Your task to perform on an android device: Open the phone app and click the voicemail tab. Image 0: 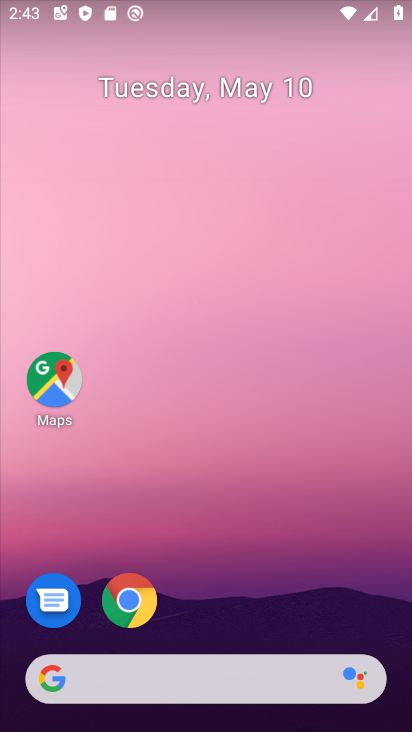
Step 0: drag from (257, 669) to (232, 7)
Your task to perform on an android device: Open the phone app and click the voicemail tab. Image 1: 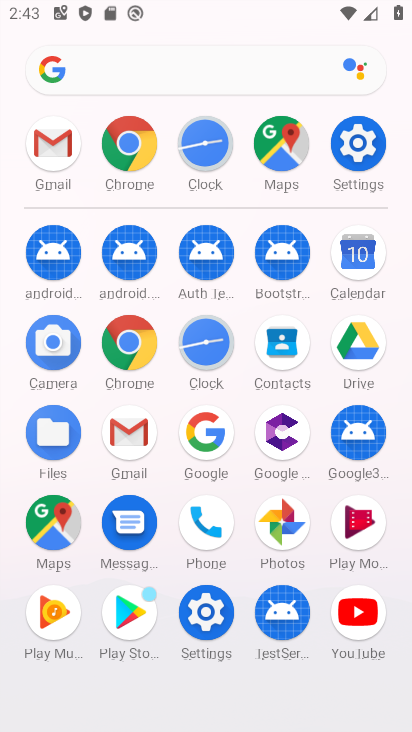
Step 1: drag from (262, 523) to (284, 333)
Your task to perform on an android device: Open the phone app and click the voicemail tab. Image 2: 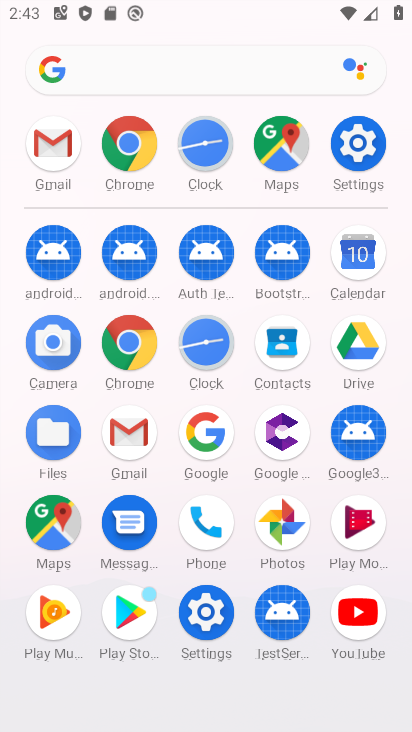
Step 2: click (217, 529)
Your task to perform on an android device: Open the phone app and click the voicemail tab. Image 3: 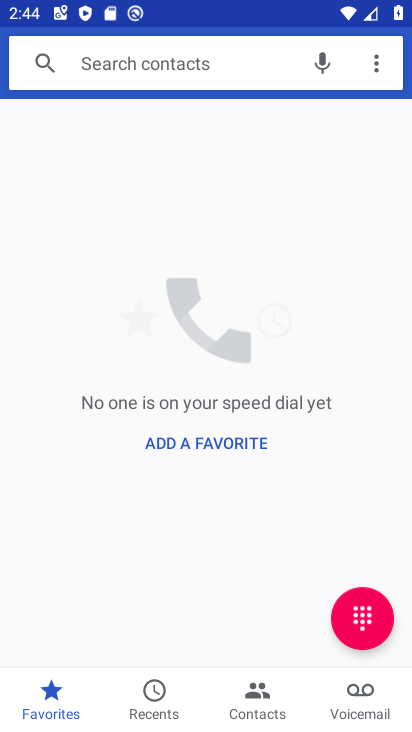
Step 3: click (370, 701)
Your task to perform on an android device: Open the phone app and click the voicemail tab. Image 4: 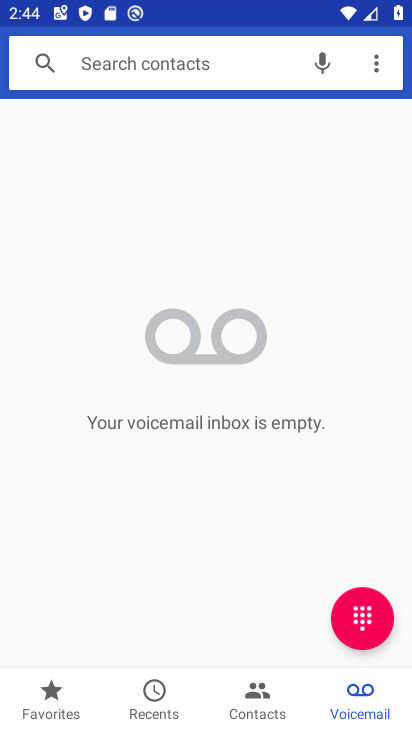
Step 4: task complete